Your task to perform on an android device: read, delete, or share a saved page in the chrome app Image 0: 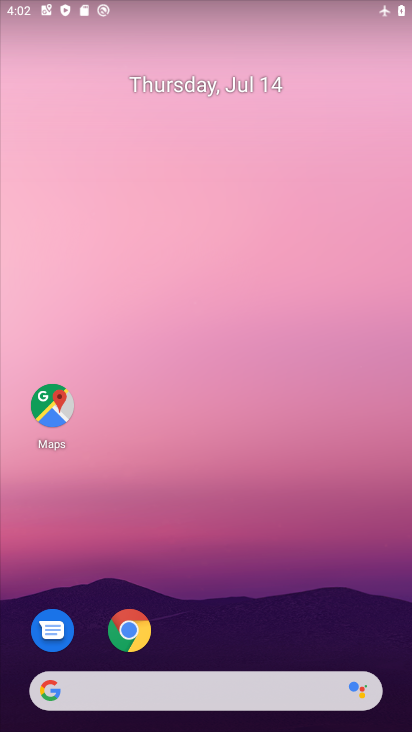
Step 0: drag from (319, 690) to (338, 5)
Your task to perform on an android device: read, delete, or share a saved page in the chrome app Image 1: 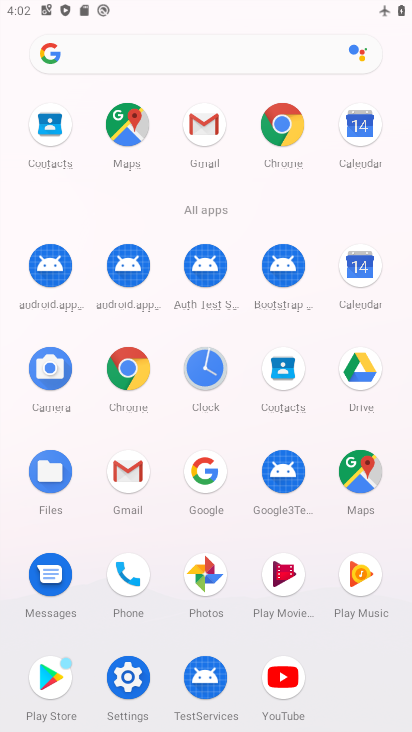
Step 1: click (122, 364)
Your task to perform on an android device: read, delete, or share a saved page in the chrome app Image 2: 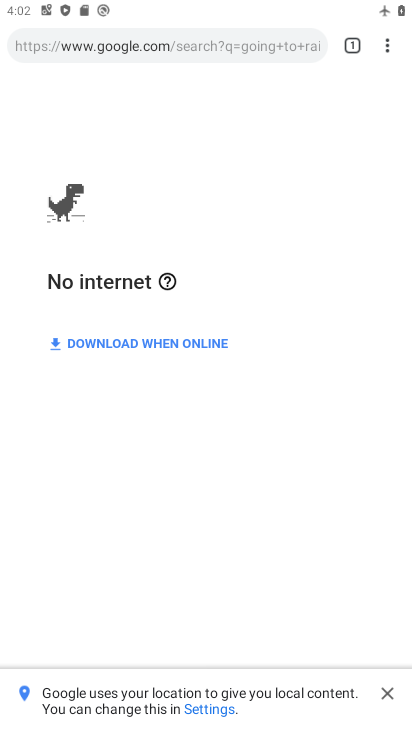
Step 2: task complete